Your task to perform on an android device: Open calendar and show me the second week of next month Image 0: 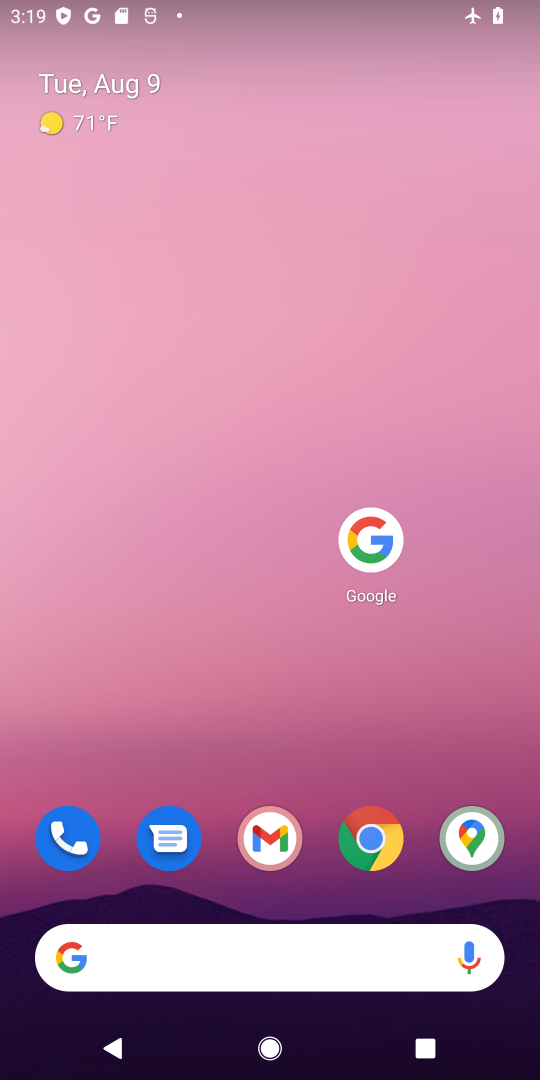
Step 0: drag from (269, 761) to (371, 0)
Your task to perform on an android device: Open calendar and show me the second week of next month Image 1: 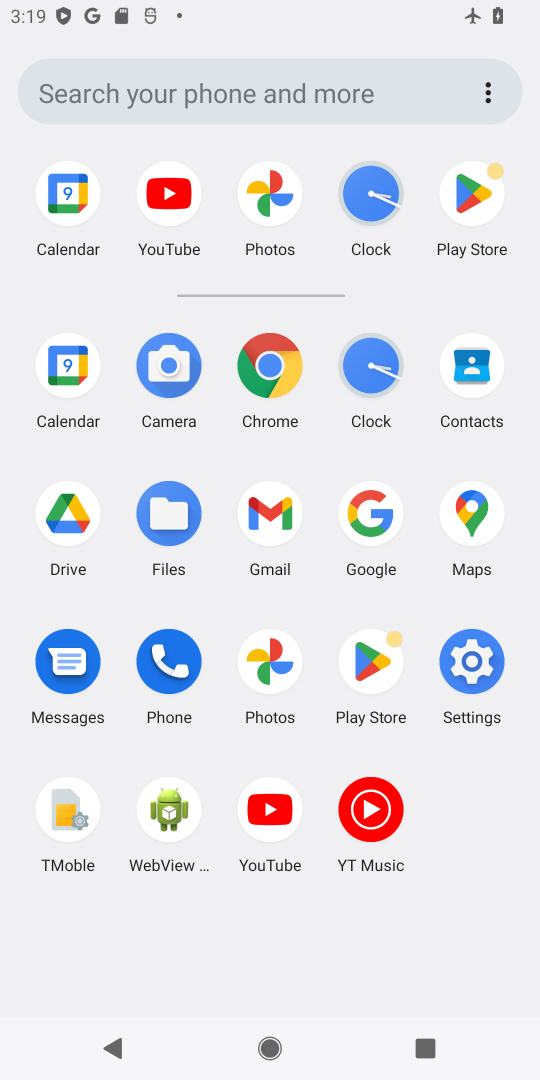
Step 1: click (71, 369)
Your task to perform on an android device: Open calendar and show me the second week of next month Image 2: 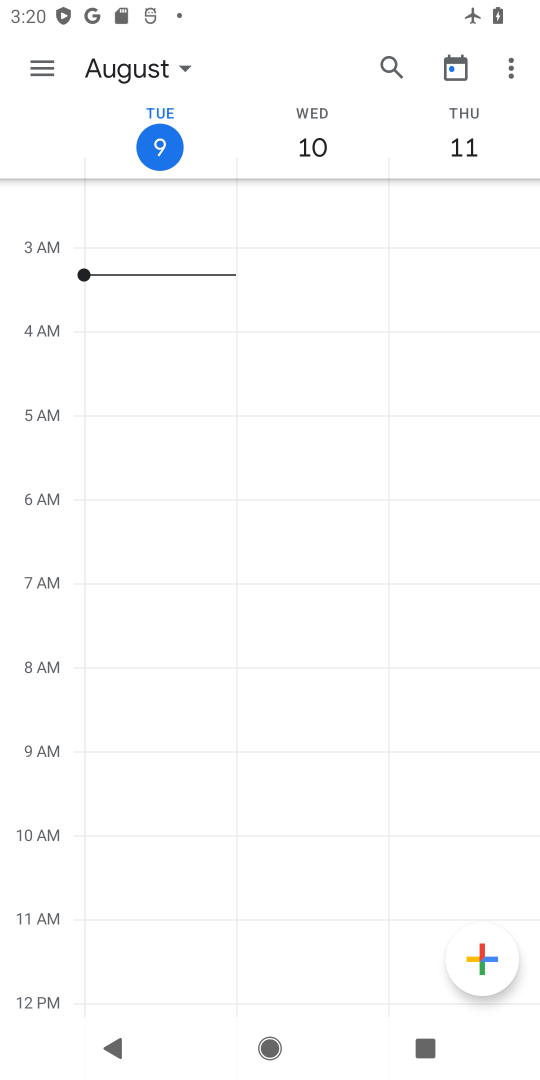
Step 2: click (142, 62)
Your task to perform on an android device: Open calendar and show me the second week of next month Image 3: 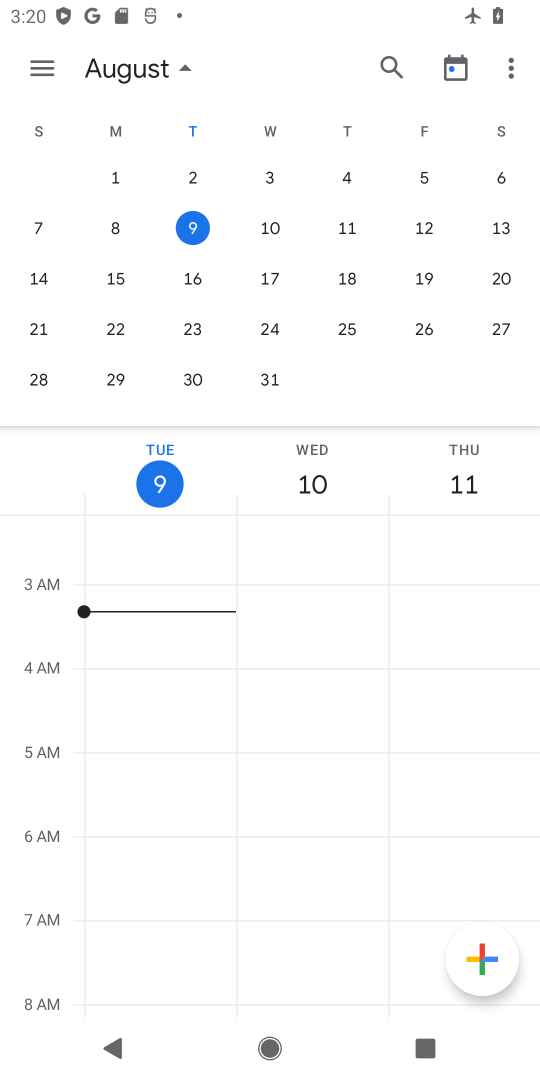
Step 3: drag from (501, 299) to (253, 274)
Your task to perform on an android device: Open calendar and show me the second week of next month Image 4: 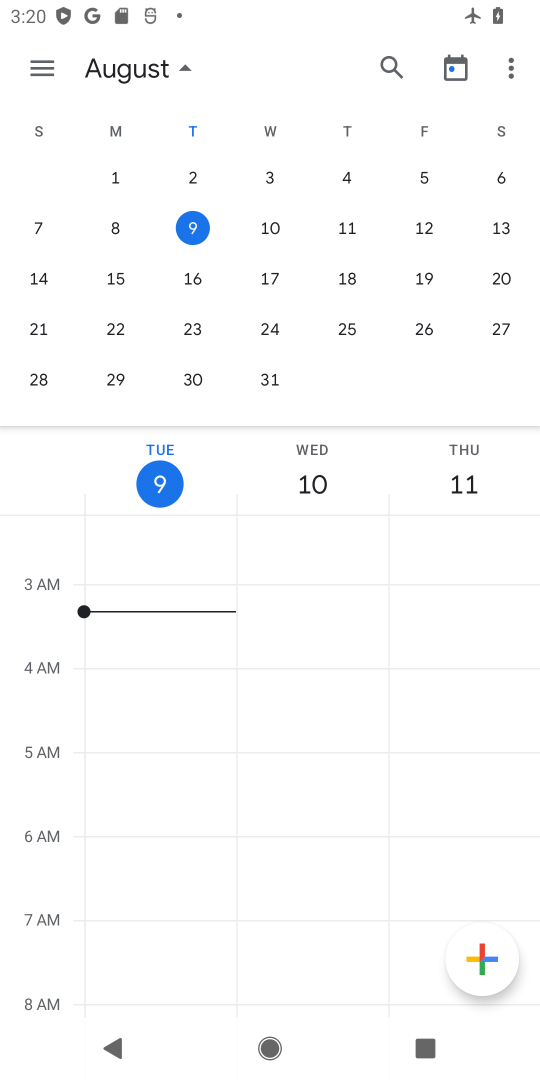
Step 4: drag from (459, 296) to (99, 287)
Your task to perform on an android device: Open calendar and show me the second week of next month Image 5: 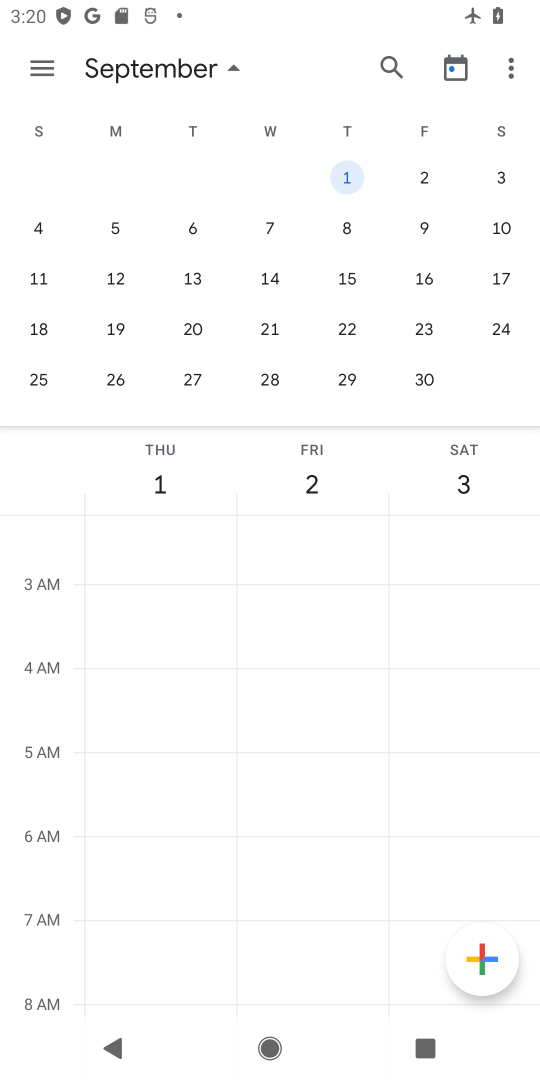
Step 5: click (194, 278)
Your task to perform on an android device: Open calendar and show me the second week of next month Image 6: 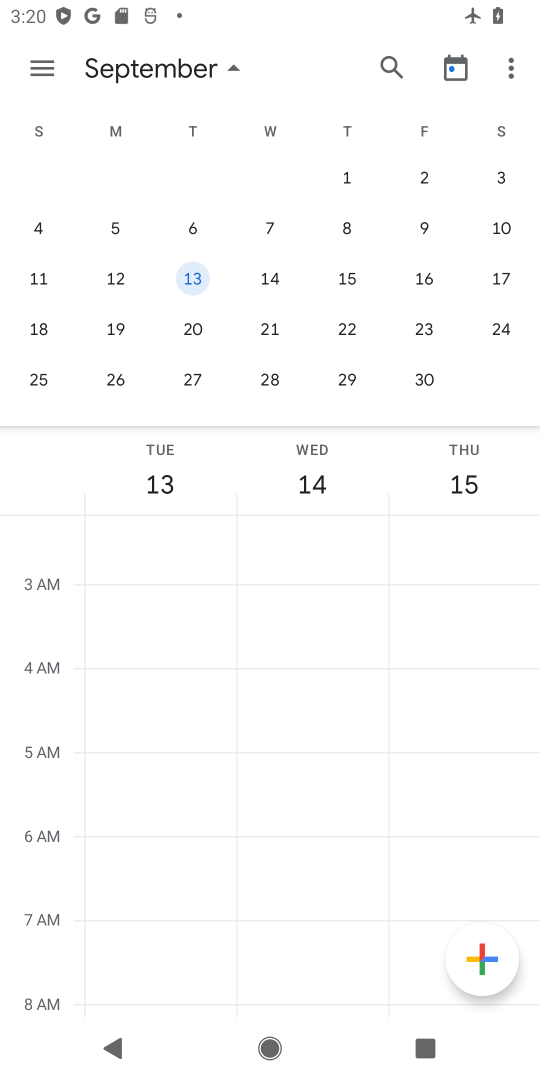
Step 6: click (59, 65)
Your task to perform on an android device: Open calendar and show me the second week of next month Image 7: 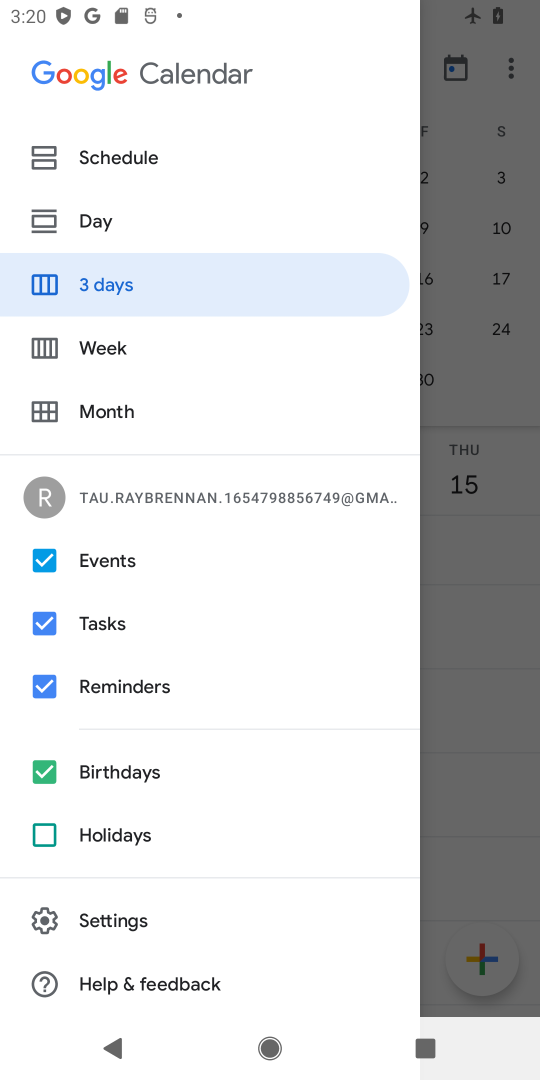
Step 7: click (106, 354)
Your task to perform on an android device: Open calendar and show me the second week of next month Image 8: 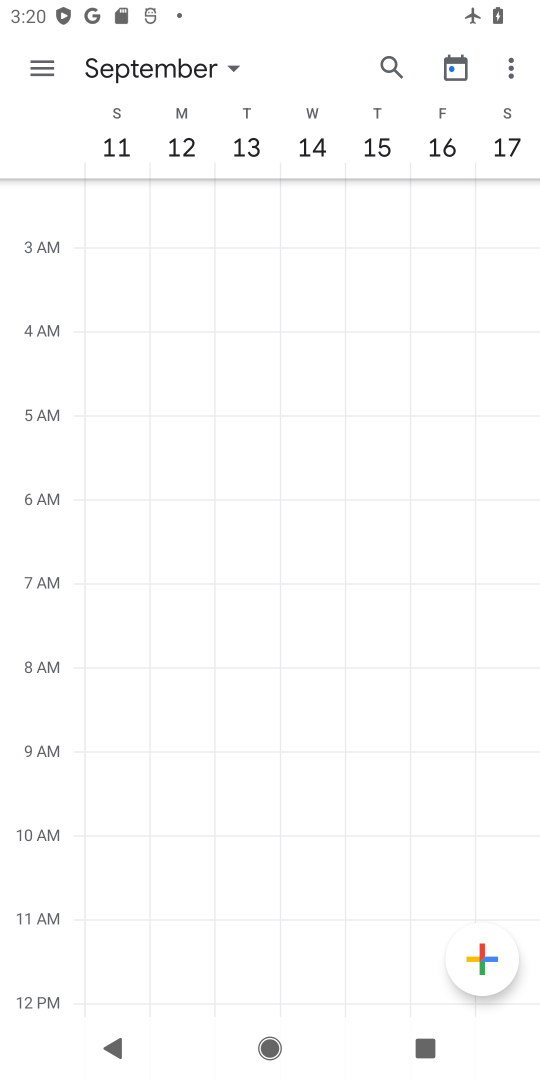
Step 8: task complete